Your task to perform on an android device: Open wifi settings Image 0: 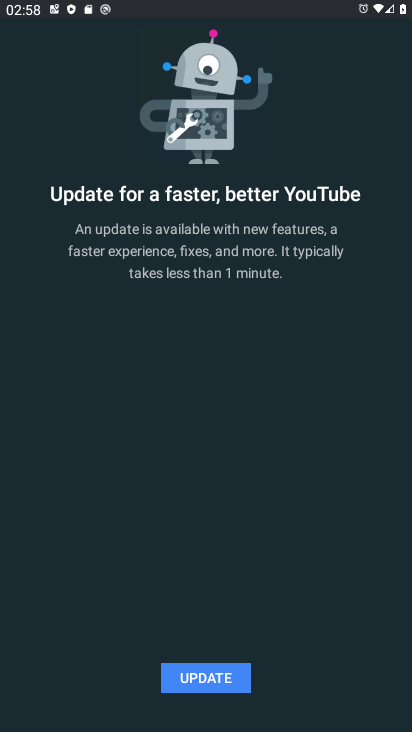
Step 0: press home button
Your task to perform on an android device: Open wifi settings Image 1: 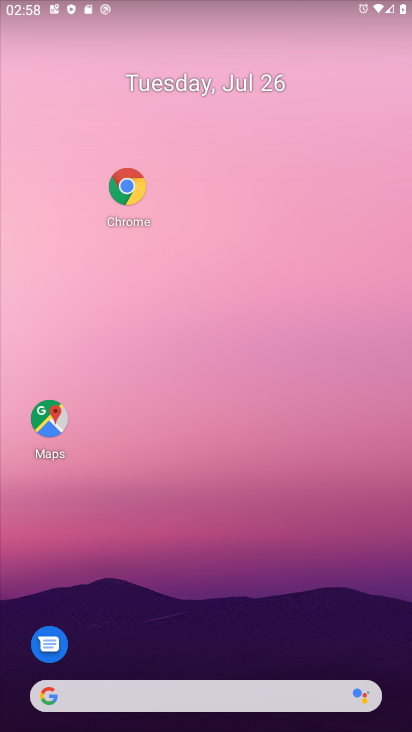
Step 1: drag from (140, 660) to (155, 150)
Your task to perform on an android device: Open wifi settings Image 2: 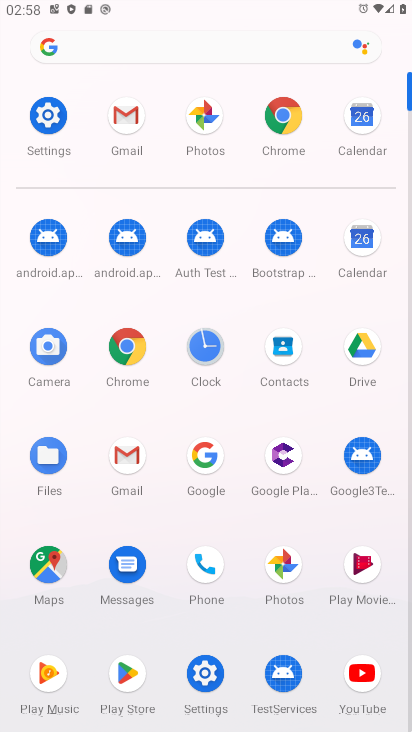
Step 2: click (47, 129)
Your task to perform on an android device: Open wifi settings Image 3: 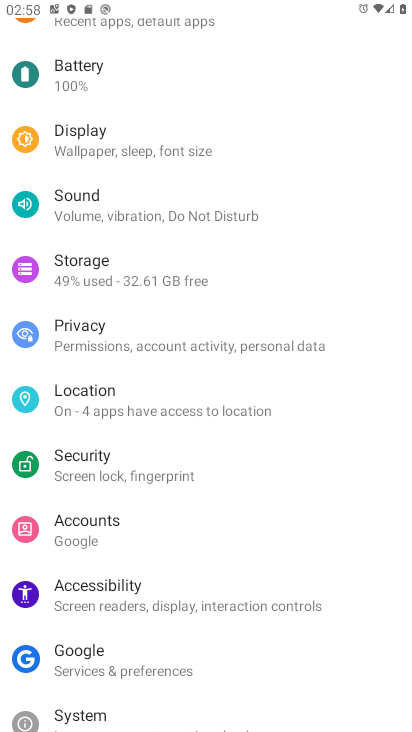
Step 3: drag from (194, 73) to (195, 507)
Your task to perform on an android device: Open wifi settings Image 4: 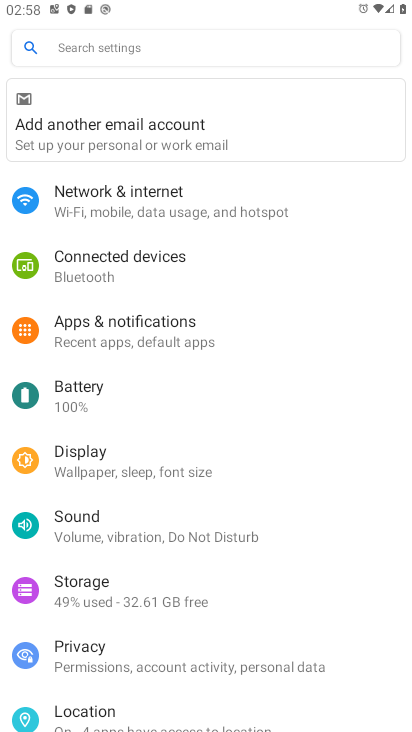
Step 4: click (146, 208)
Your task to perform on an android device: Open wifi settings Image 5: 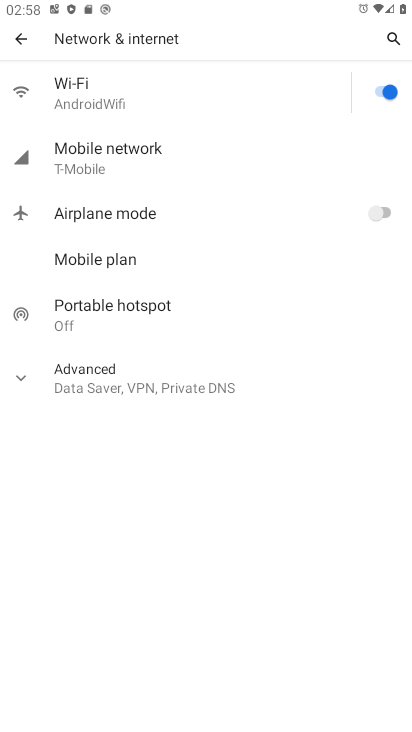
Step 5: click (98, 86)
Your task to perform on an android device: Open wifi settings Image 6: 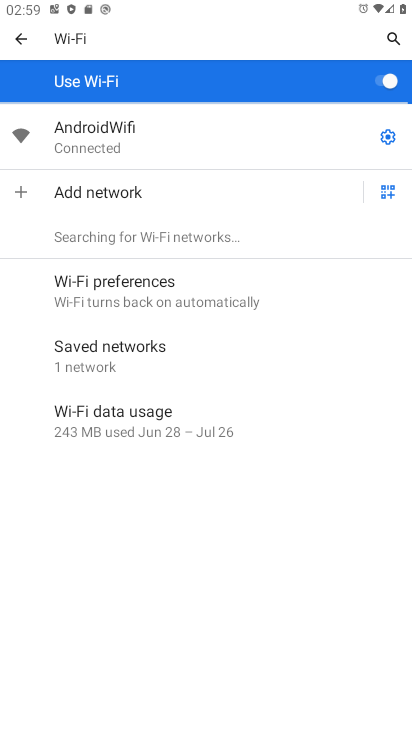
Step 6: task complete